Your task to perform on an android device: snooze an email in the gmail app Image 0: 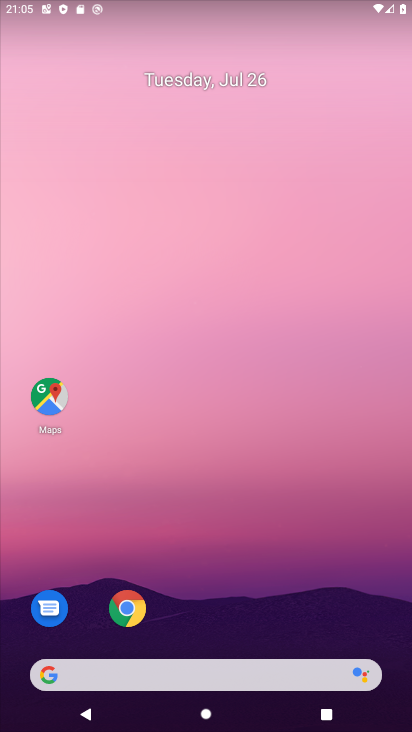
Step 0: click (266, 52)
Your task to perform on an android device: snooze an email in the gmail app Image 1: 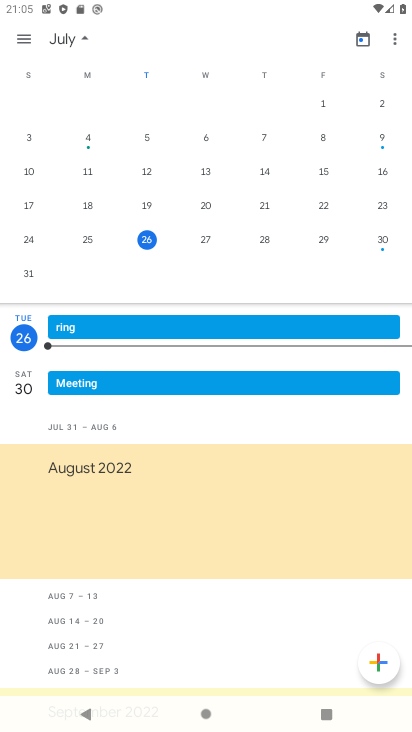
Step 1: task complete